Your task to perform on an android device: Open Chrome and go to the settings page Image 0: 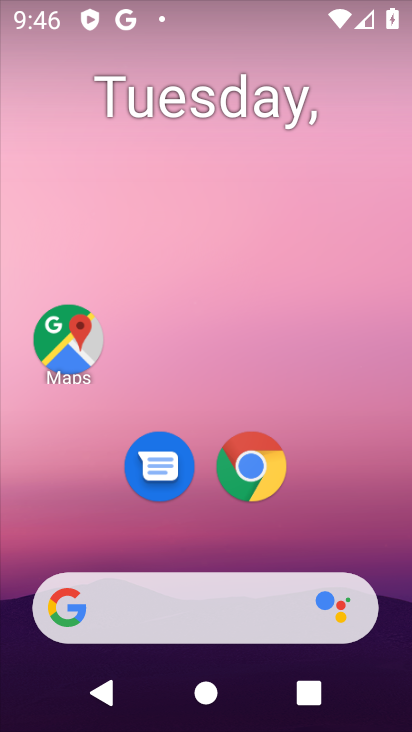
Step 0: click (250, 468)
Your task to perform on an android device: Open Chrome and go to the settings page Image 1: 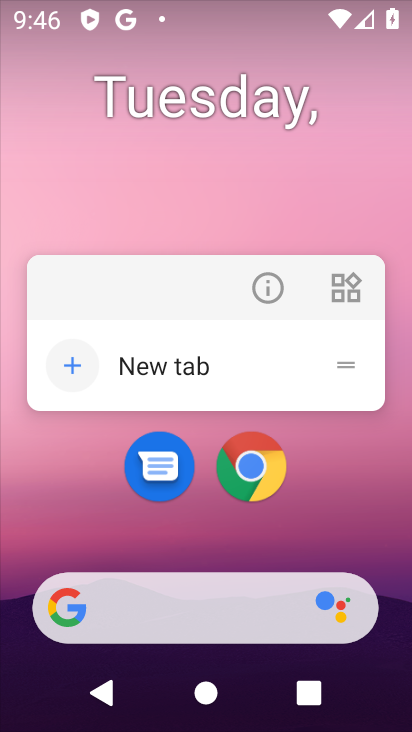
Step 1: click (259, 457)
Your task to perform on an android device: Open Chrome and go to the settings page Image 2: 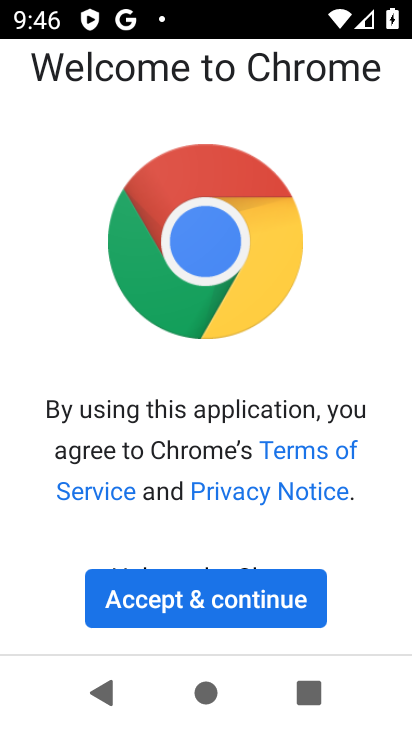
Step 2: click (202, 603)
Your task to perform on an android device: Open Chrome and go to the settings page Image 3: 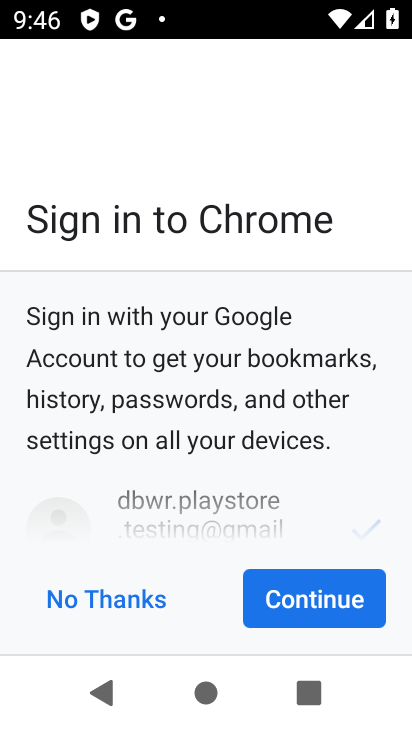
Step 3: click (346, 594)
Your task to perform on an android device: Open Chrome and go to the settings page Image 4: 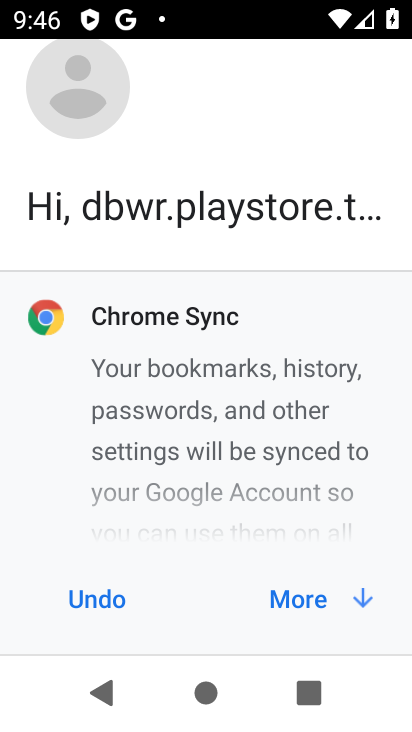
Step 4: click (313, 598)
Your task to perform on an android device: Open Chrome and go to the settings page Image 5: 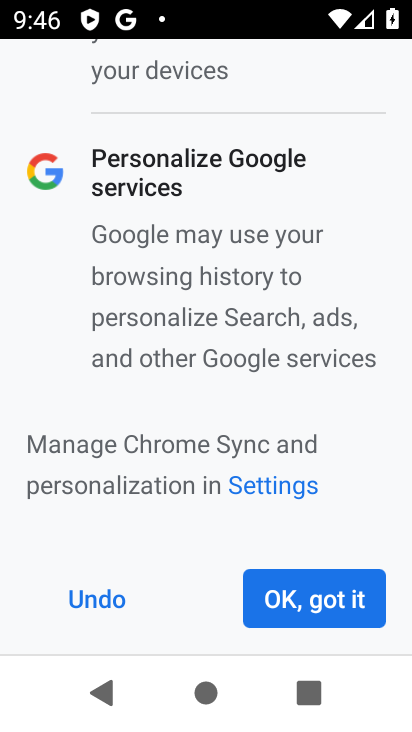
Step 5: click (312, 598)
Your task to perform on an android device: Open Chrome and go to the settings page Image 6: 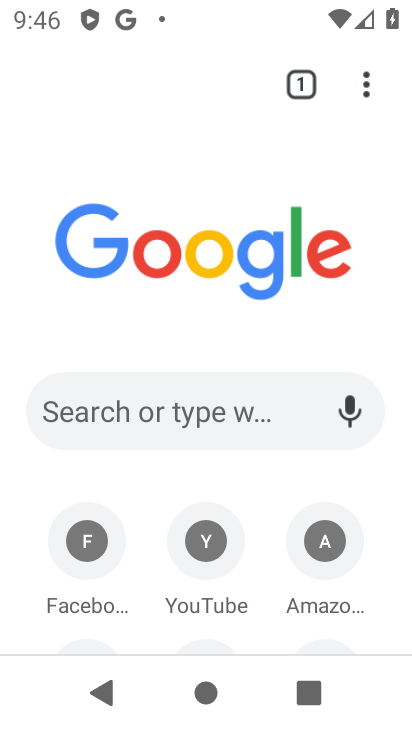
Step 6: task complete